Your task to perform on an android device: Do I have any events today? Image 0: 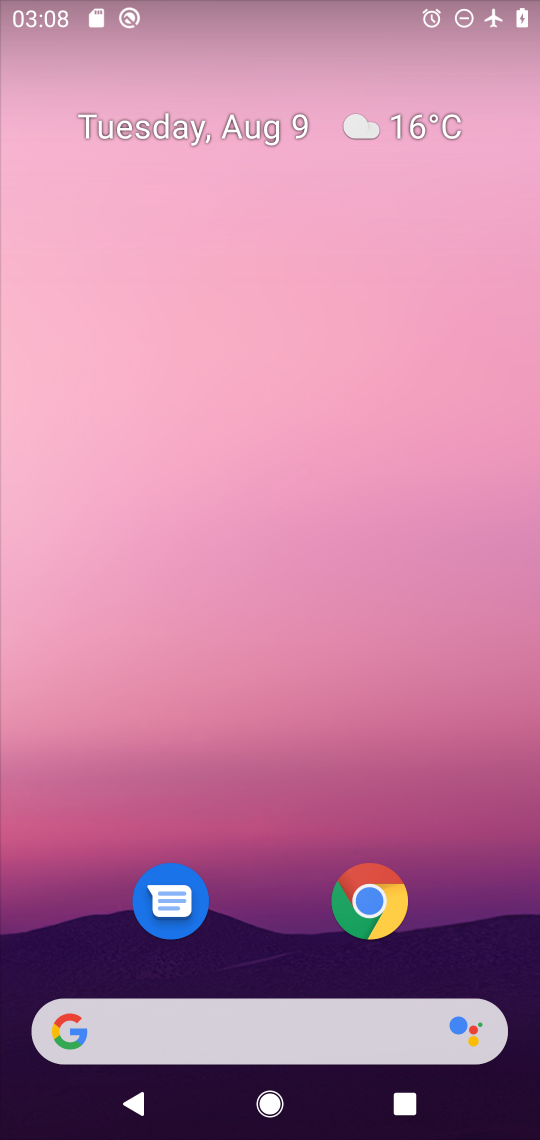
Step 0: drag from (497, 943) to (443, 173)
Your task to perform on an android device: Do I have any events today? Image 1: 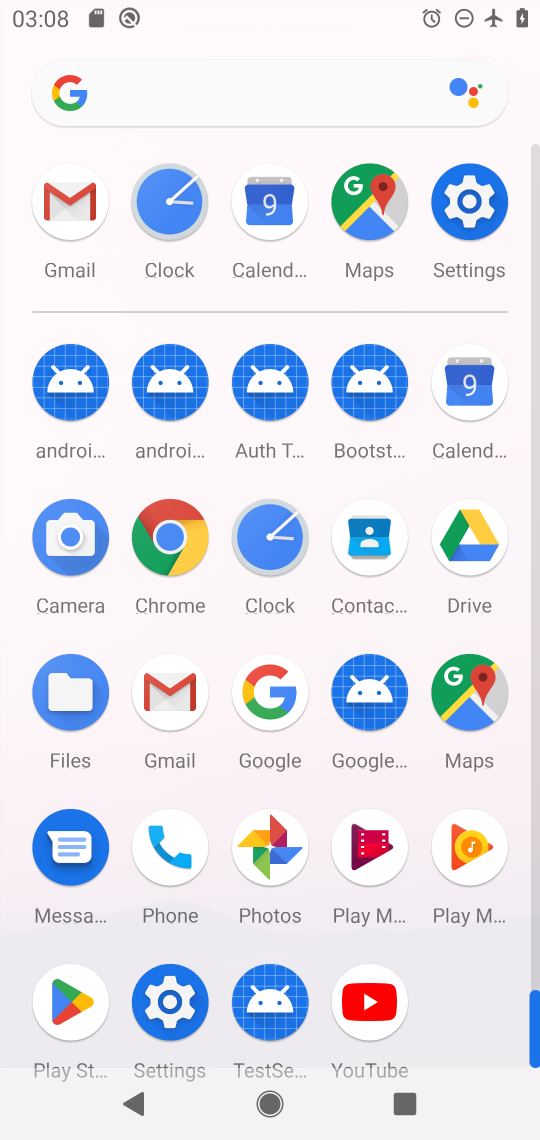
Step 1: click (468, 378)
Your task to perform on an android device: Do I have any events today? Image 2: 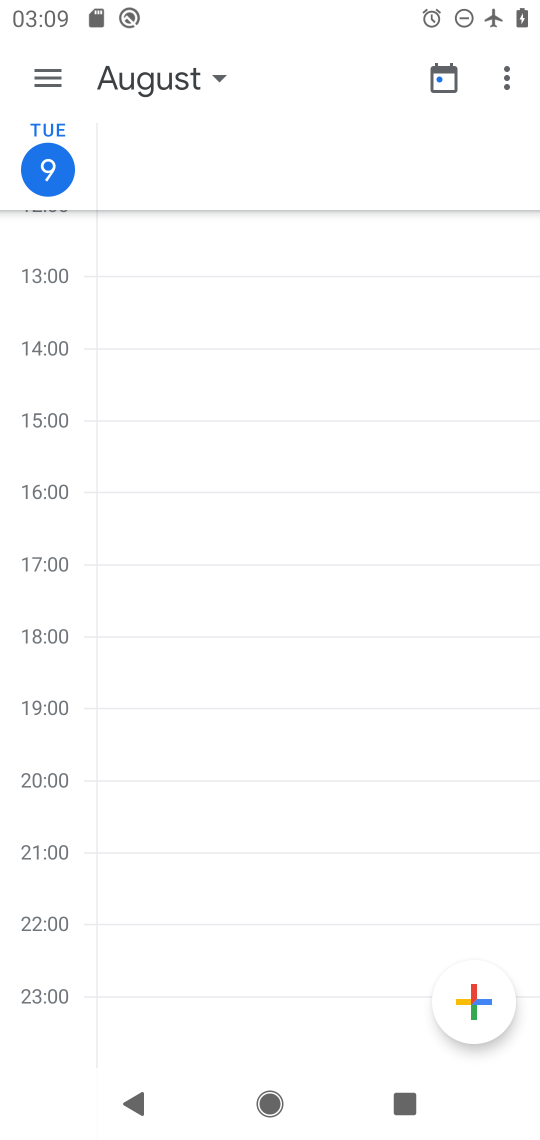
Step 2: task complete